Your task to perform on an android device: Open Youtube and go to "Your channel" Image 0: 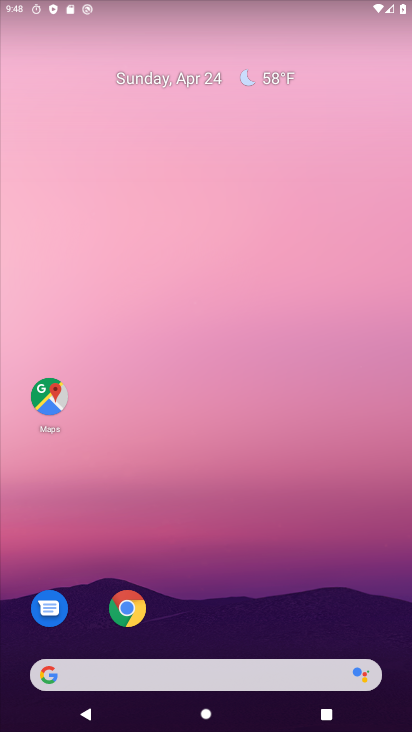
Step 0: drag from (356, 575) to (340, 65)
Your task to perform on an android device: Open Youtube and go to "Your channel" Image 1: 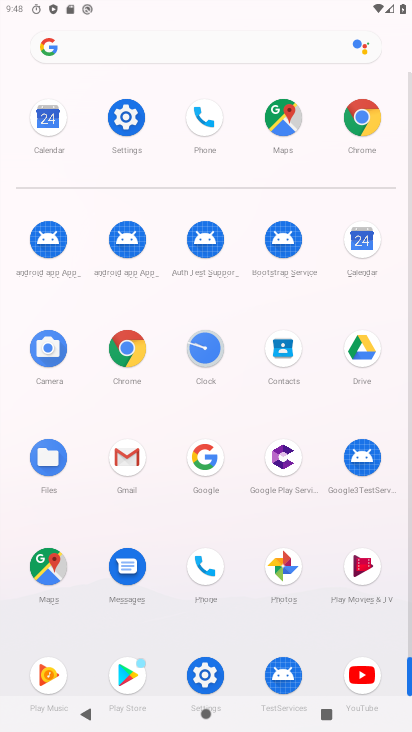
Step 1: click (364, 672)
Your task to perform on an android device: Open Youtube and go to "Your channel" Image 2: 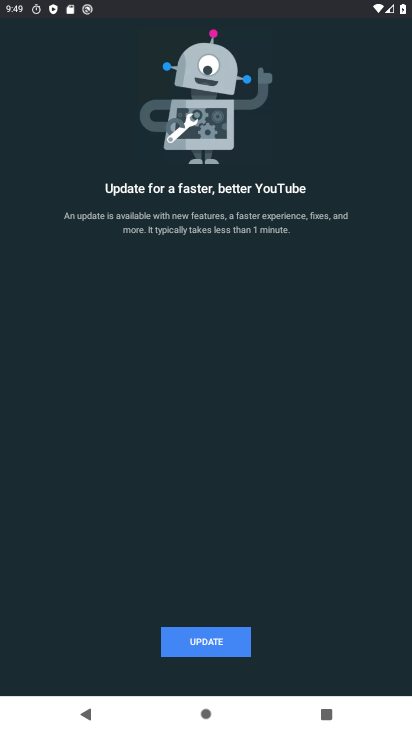
Step 2: click (220, 649)
Your task to perform on an android device: Open Youtube and go to "Your channel" Image 3: 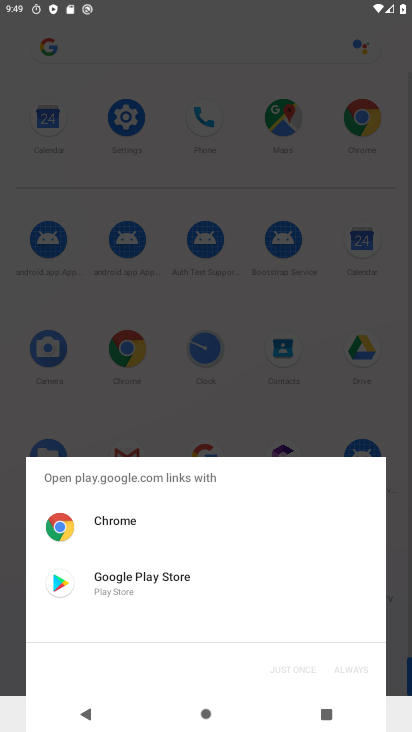
Step 3: click (161, 596)
Your task to perform on an android device: Open Youtube and go to "Your channel" Image 4: 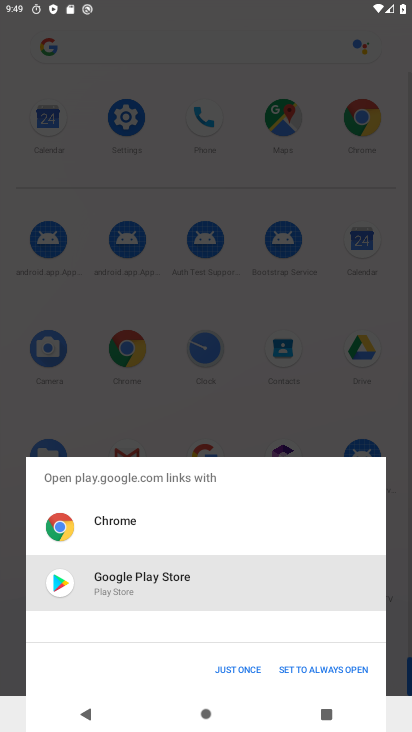
Step 4: click (249, 672)
Your task to perform on an android device: Open Youtube and go to "Your channel" Image 5: 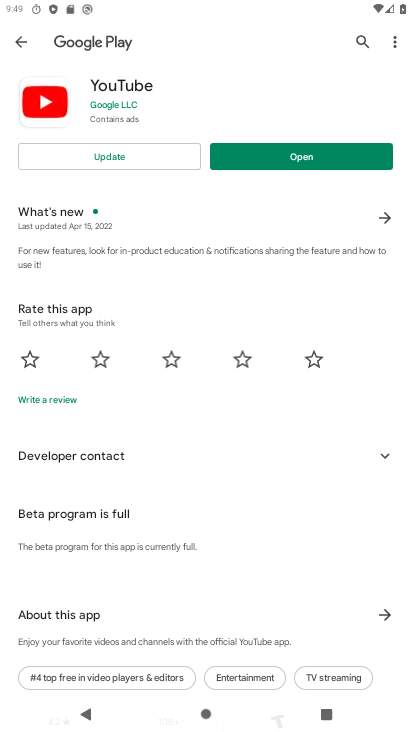
Step 5: click (136, 156)
Your task to perform on an android device: Open Youtube and go to "Your channel" Image 6: 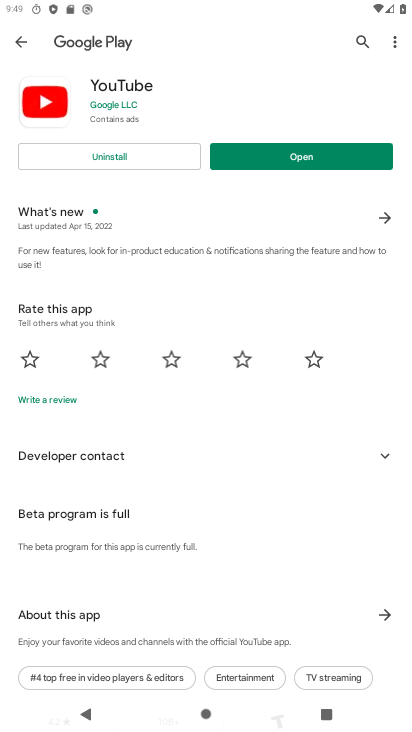
Step 6: click (336, 156)
Your task to perform on an android device: Open Youtube and go to "Your channel" Image 7: 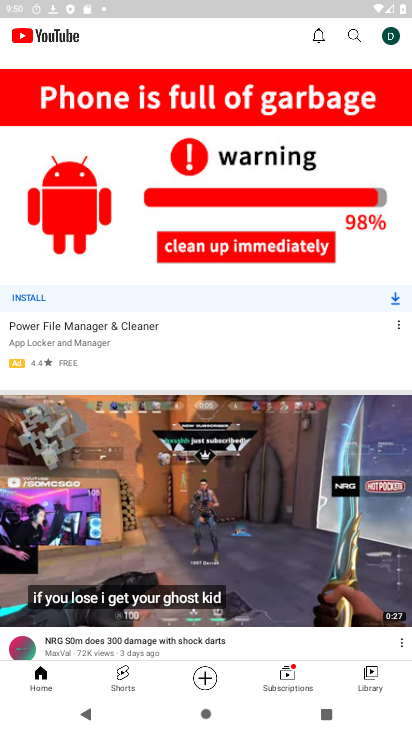
Step 7: click (392, 34)
Your task to perform on an android device: Open Youtube and go to "Your channel" Image 8: 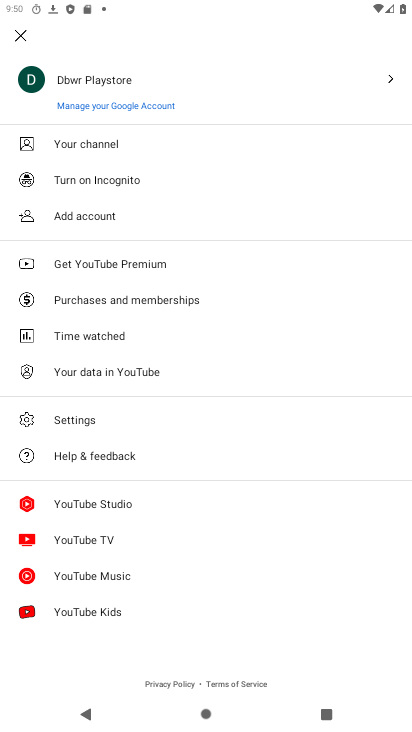
Step 8: click (225, 142)
Your task to perform on an android device: Open Youtube and go to "Your channel" Image 9: 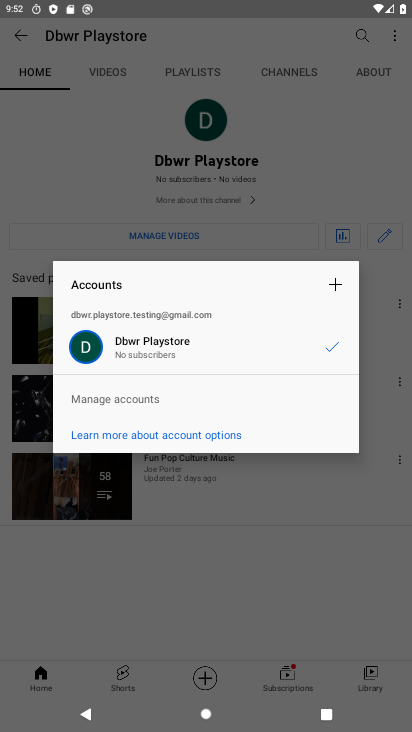
Step 9: task complete